Your task to perform on an android device: Empty the shopping cart on newegg.com. Add razer thresher to the cart on newegg.com, then select checkout. Image 0: 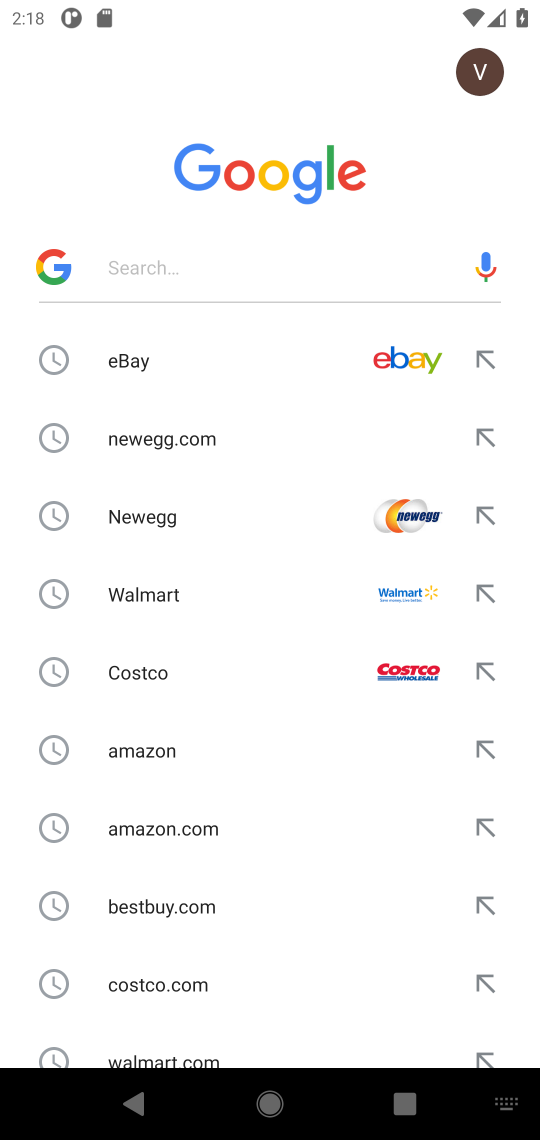
Step 0: press home button
Your task to perform on an android device: Empty the shopping cart on newegg.com. Add razer thresher to the cart on newegg.com, then select checkout. Image 1: 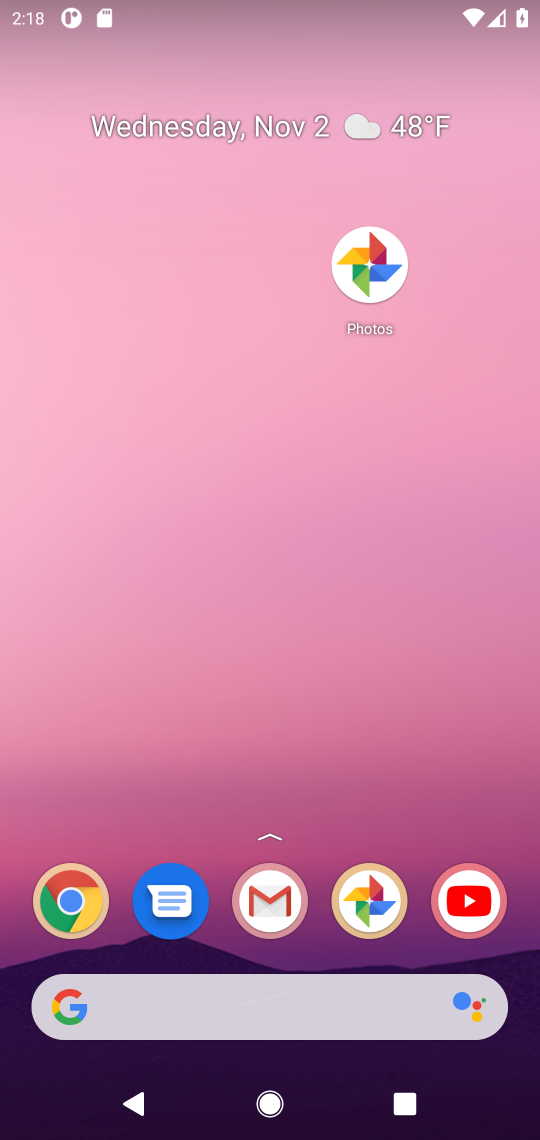
Step 1: drag from (316, 975) to (250, 49)
Your task to perform on an android device: Empty the shopping cart on newegg.com. Add razer thresher to the cart on newegg.com, then select checkout. Image 2: 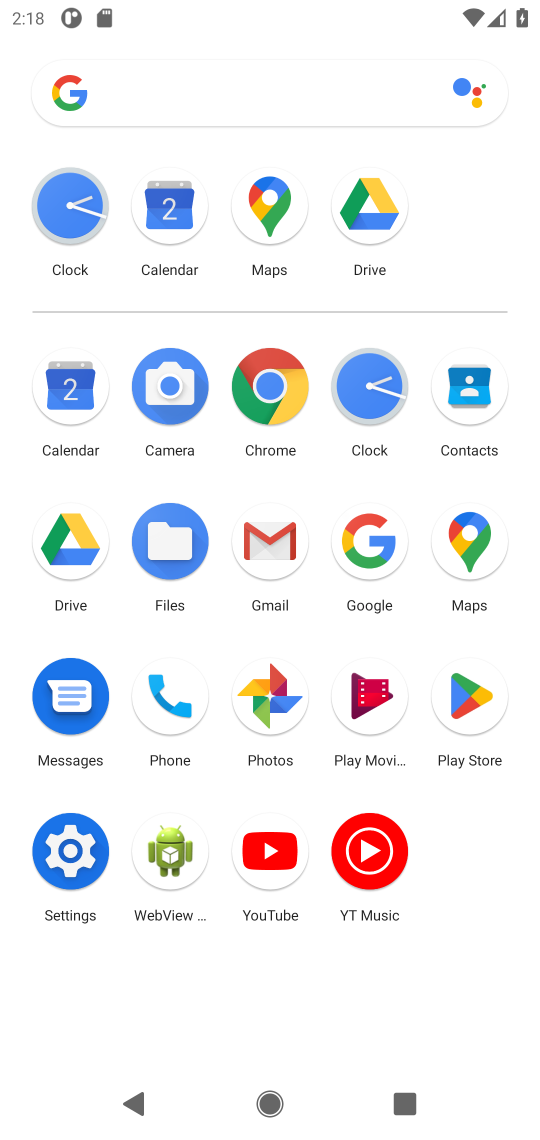
Step 2: click (274, 381)
Your task to perform on an android device: Empty the shopping cart on newegg.com. Add razer thresher to the cart on newegg.com, then select checkout. Image 3: 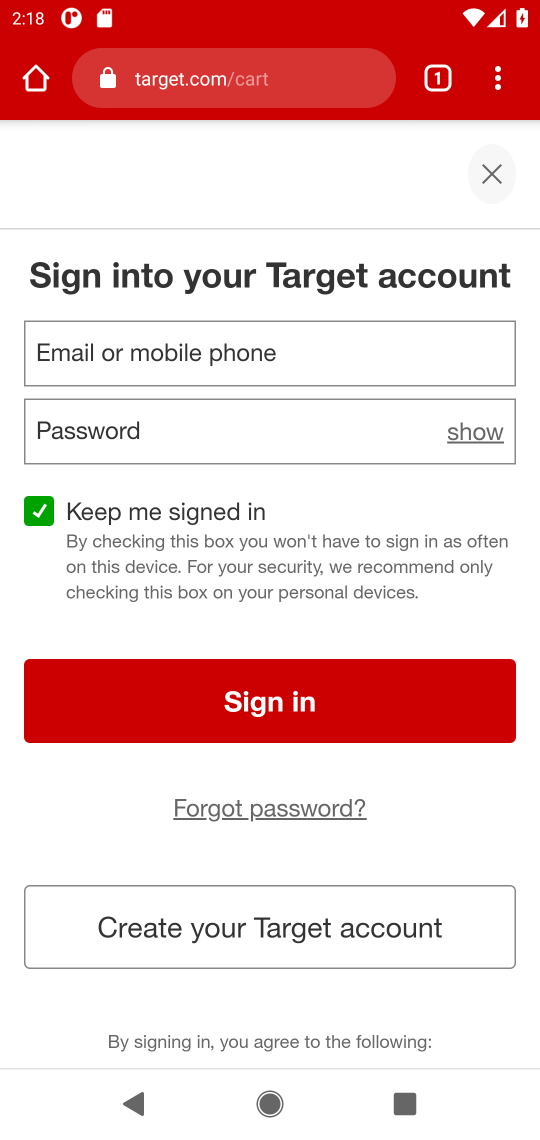
Step 3: click (274, 64)
Your task to perform on an android device: Empty the shopping cart on newegg.com. Add razer thresher to the cart on newegg.com, then select checkout. Image 4: 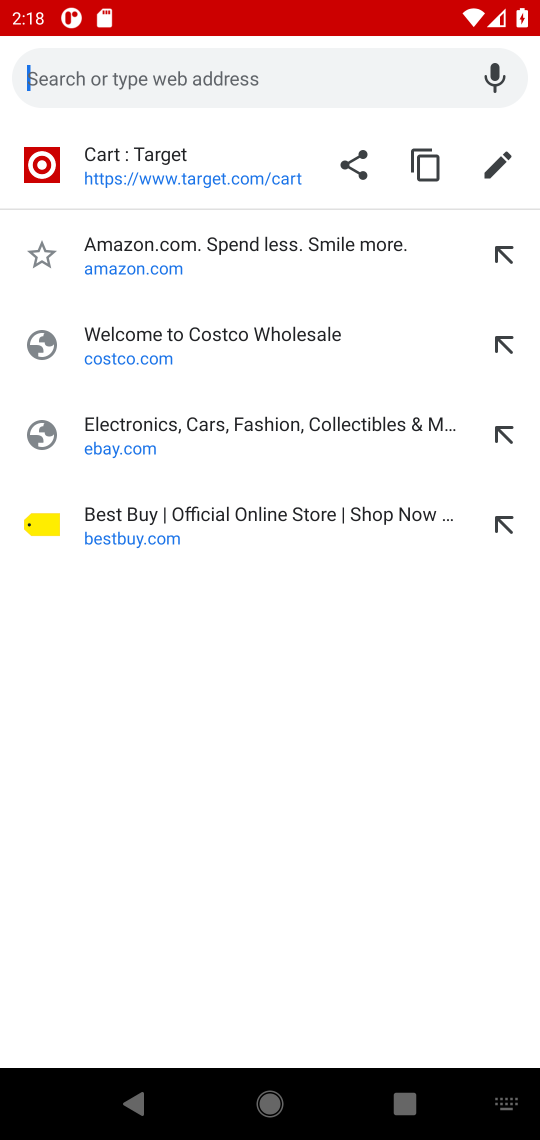
Step 4: type "newegg.com"
Your task to perform on an android device: Empty the shopping cart on newegg.com. Add razer thresher to the cart on newegg.com, then select checkout. Image 5: 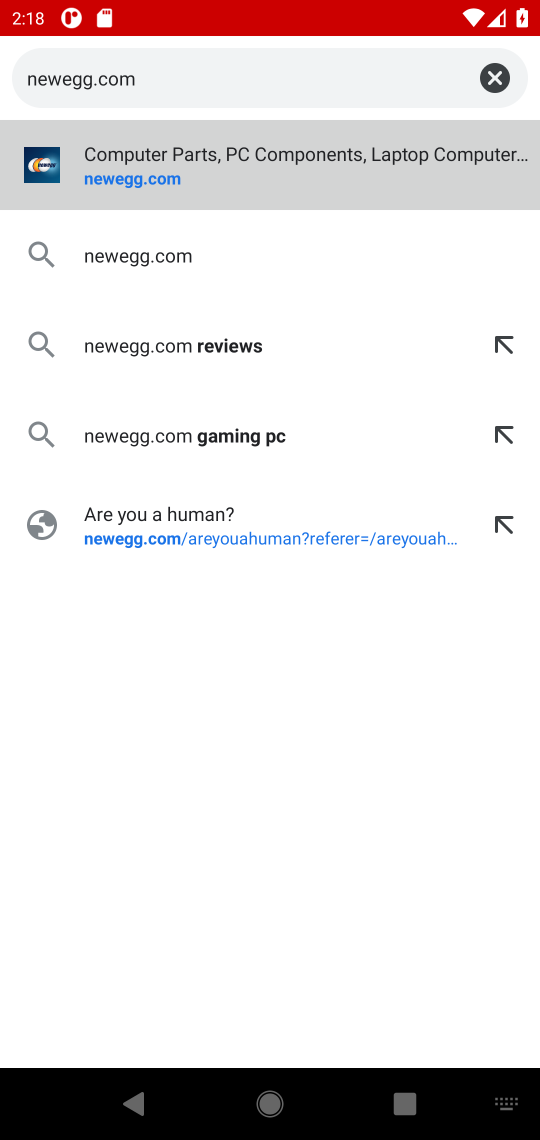
Step 5: press enter
Your task to perform on an android device: Empty the shopping cart on newegg.com. Add razer thresher to the cart on newegg.com, then select checkout. Image 6: 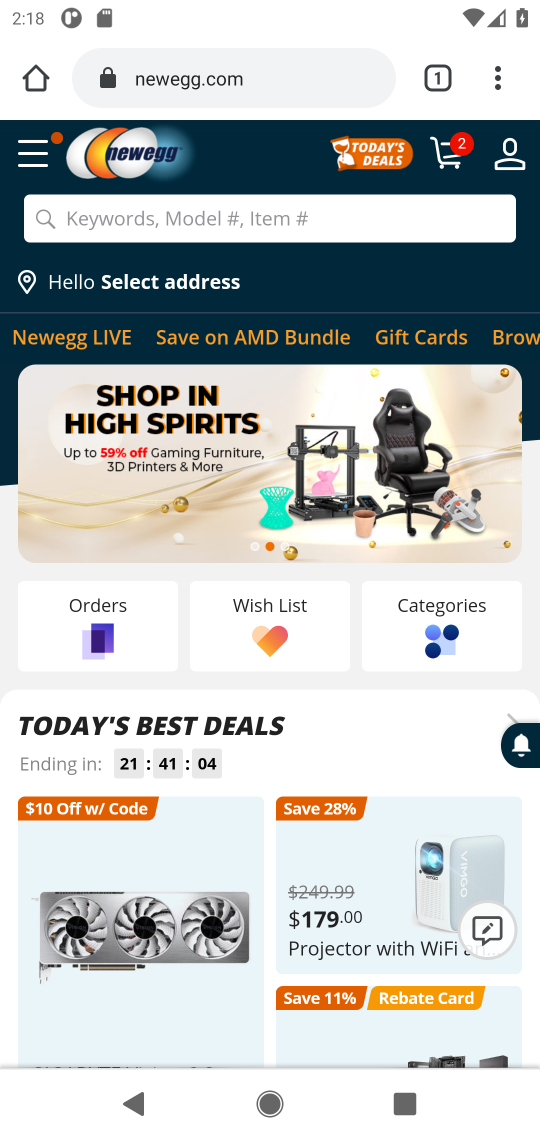
Step 6: click (454, 136)
Your task to perform on an android device: Empty the shopping cart on newegg.com. Add razer thresher to the cart on newegg.com, then select checkout. Image 7: 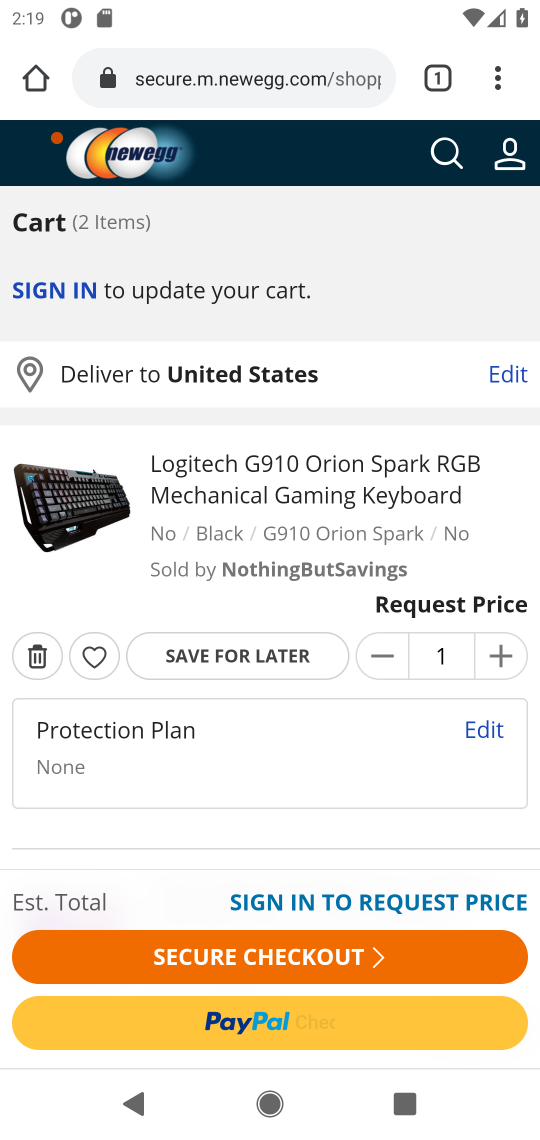
Step 7: click (33, 670)
Your task to perform on an android device: Empty the shopping cart on newegg.com. Add razer thresher to the cart on newegg.com, then select checkout. Image 8: 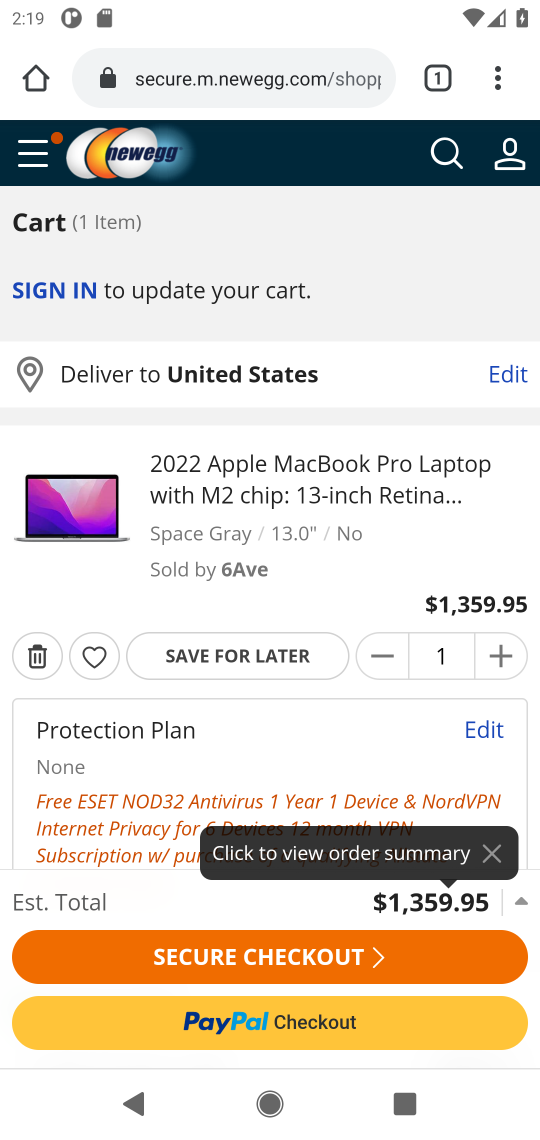
Step 8: click (33, 670)
Your task to perform on an android device: Empty the shopping cart on newegg.com. Add razer thresher to the cart on newegg.com, then select checkout. Image 9: 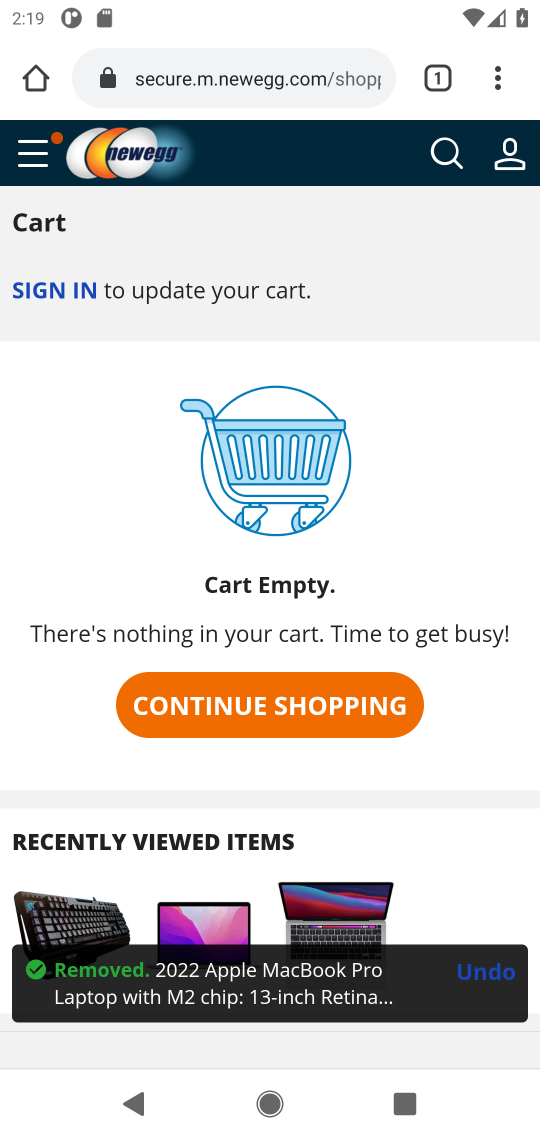
Step 9: click (443, 164)
Your task to perform on an android device: Empty the shopping cart on newegg.com. Add razer thresher to the cart on newegg.com, then select checkout. Image 10: 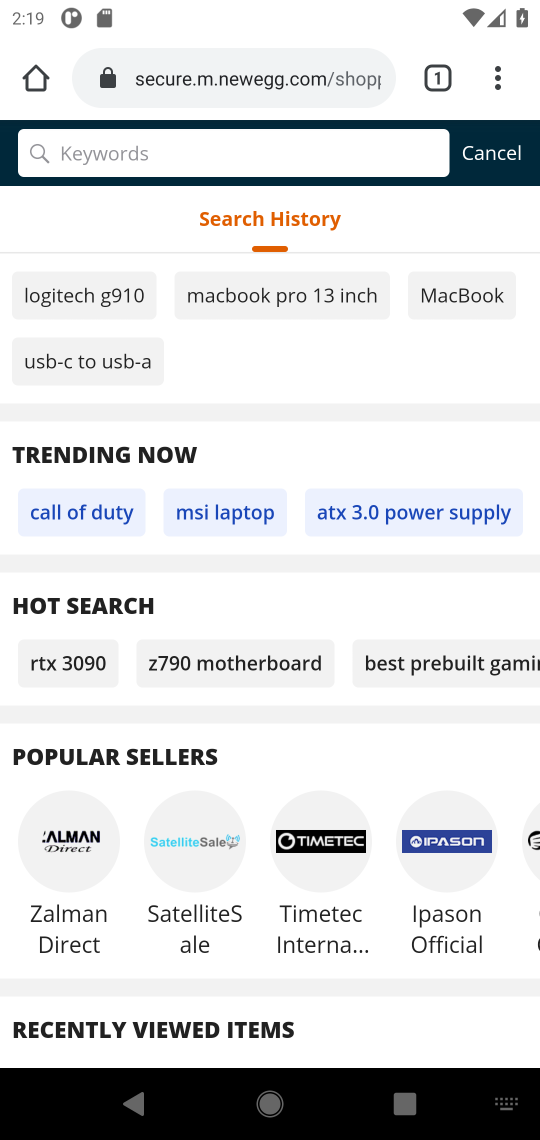
Step 10: type "razer thresher"
Your task to perform on an android device: Empty the shopping cart on newegg.com. Add razer thresher to the cart on newegg.com, then select checkout. Image 11: 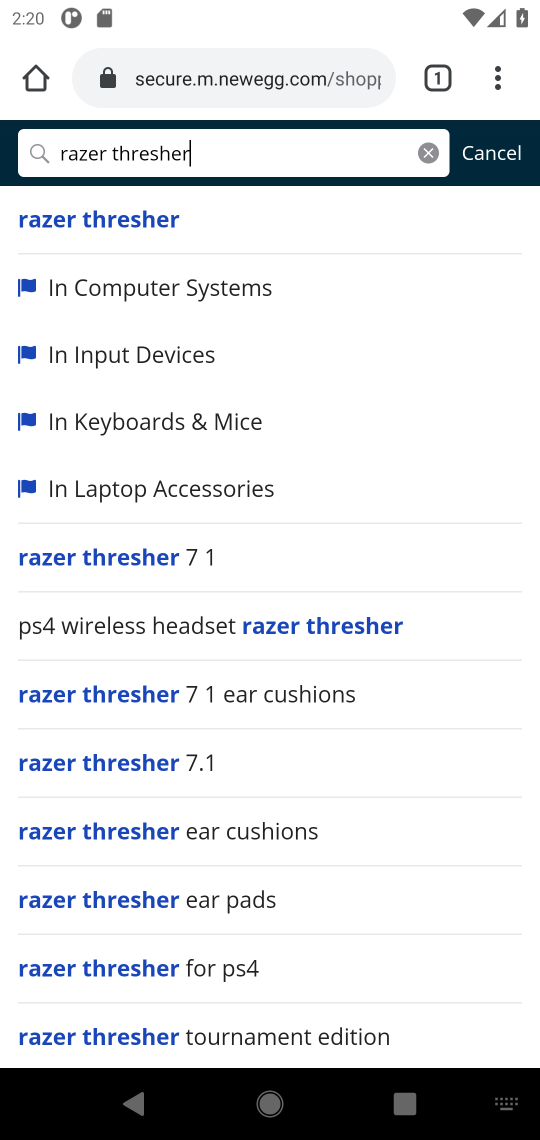
Step 11: press enter
Your task to perform on an android device: Empty the shopping cart on newegg.com. Add razer thresher to the cart on newegg.com, then select checkout. Image 12: 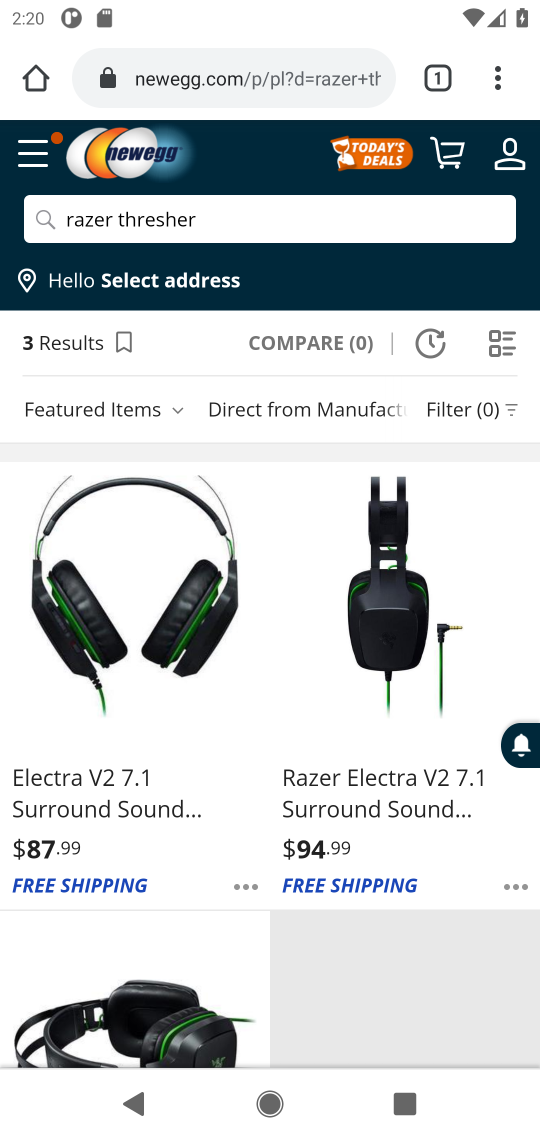
Step 12: drag from (205, 847) to (208, 232)
Your task to perform on an android device: Empty the shopping cart on newegg.com. Add razer thresher to the cart on newegg.com, then select checkout. Image 13: 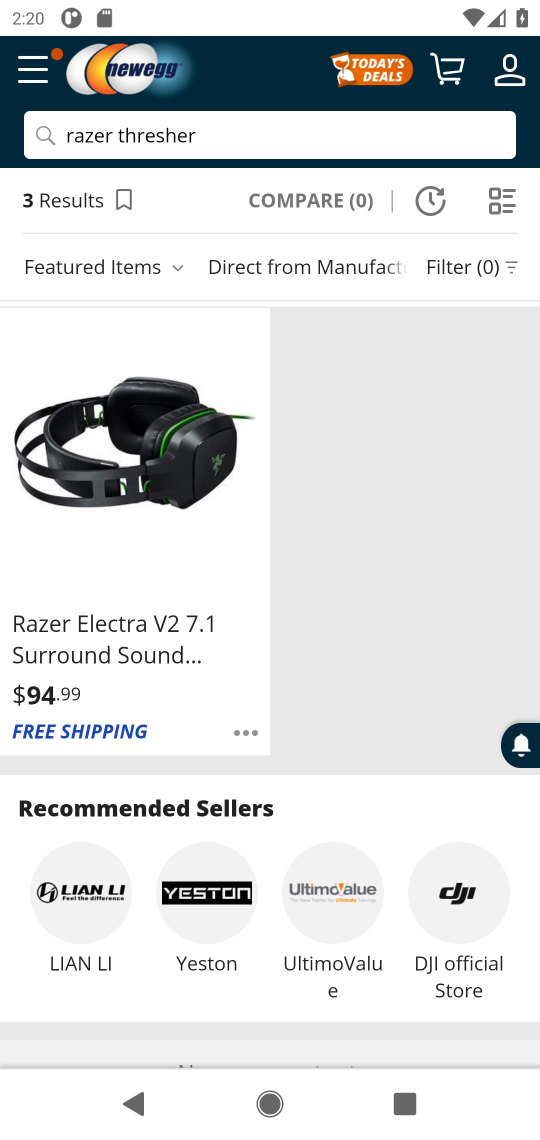
Step 13: drag from (192, 621) to (199, 921)
Your task to perform on an android device: Empty the shopping cart on newegg.com. Add razer thresher to the cart on newegg.com, then select checkout. Image 14: 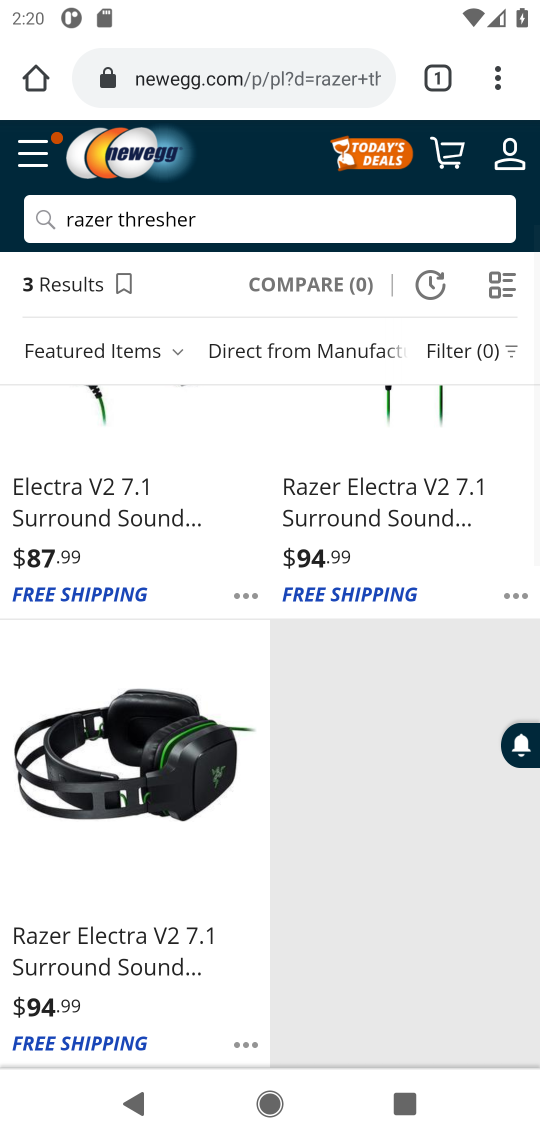
Step 14: drag from (199, 459) to (360, 985)
Your task to perform on an android device: Empty the shopping cart on newegg.com. Add razer thresher to the cart on newegg.com, then select checkout. Image 15: 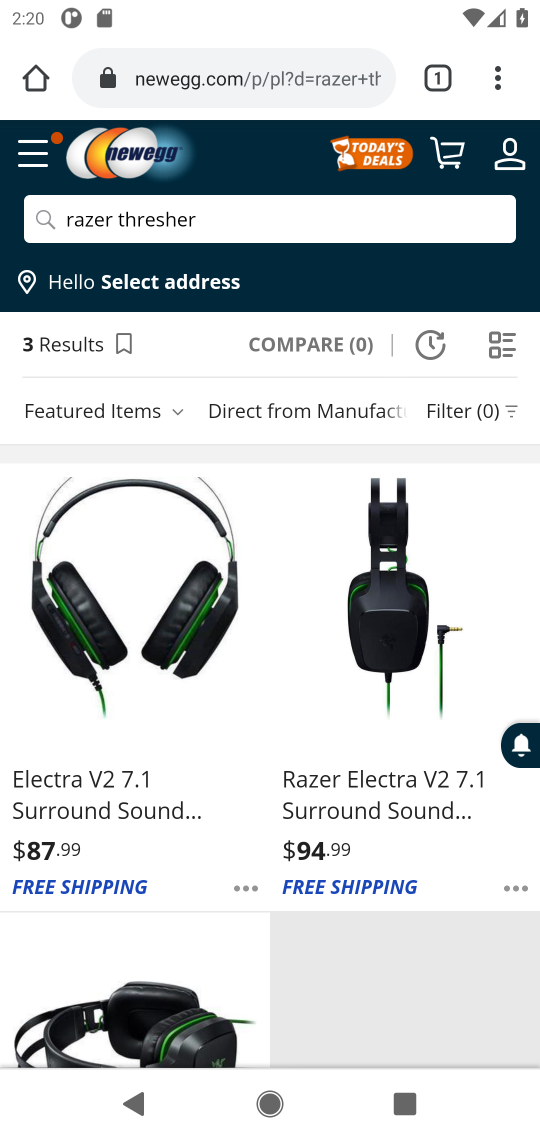
Step 15: click (168, 634)
Your task to perform on an android device: Empty the shopping cart on newegg.com. Add razer thresher to the cart on newegg.com, then select checkout. Image 16: 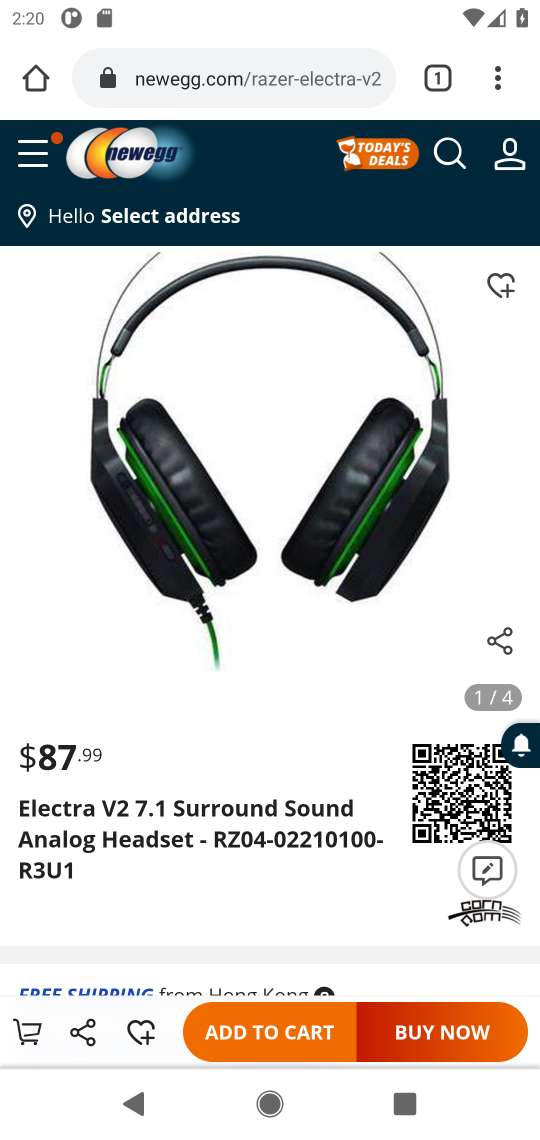
Step 16: task complete